Your task to perform on an android device: delete a single message in the gmail app Image 0: 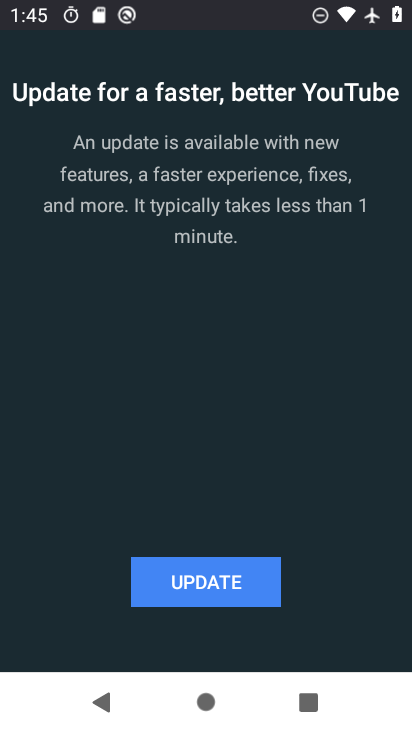
Step 0: press home button
Your task to perform on an android device: delete a single message in the gmail app Image 1: 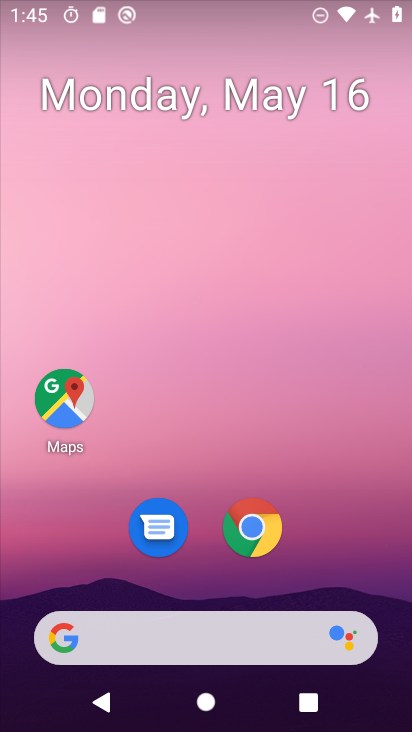
Step 1: drag from (214, 641) to (300, 225)
Your task to perform on an android device: delete a single message in the gmail app Image 2: 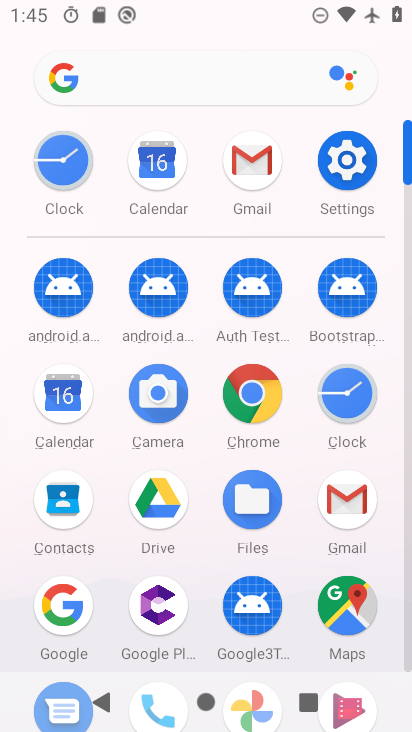
Step 2: click (259, 158)
Your task to perform on an android device: delete a single message in the gmail app Image 3: 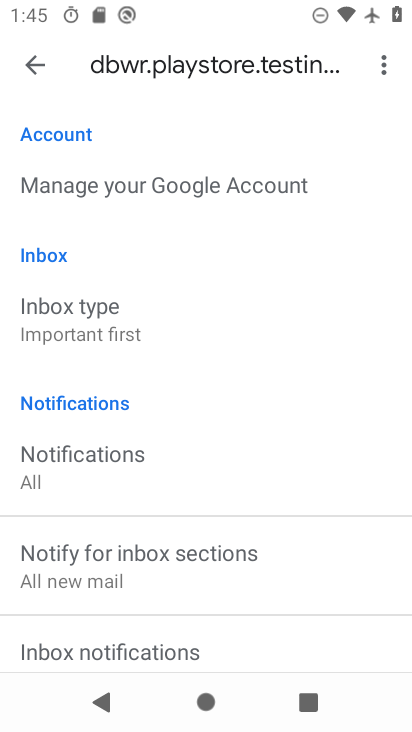
Step 3: click (43, 68)
Your task to perform on an android device: delete a single message in the gmail app Image 4: 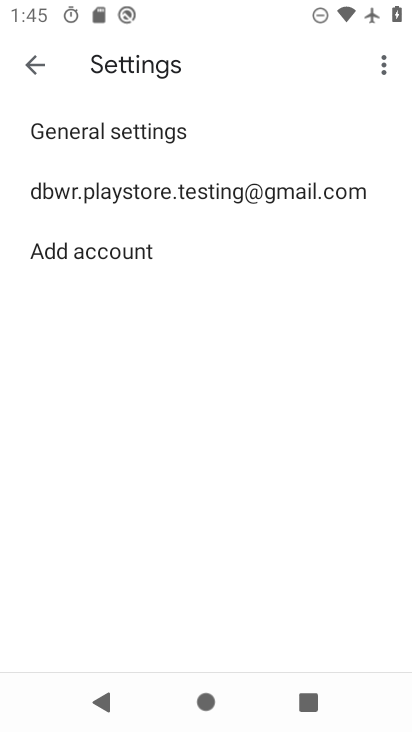
Step 4: click (32, 63)
Your task to perform on an android device: delete a single message in the gmail app Image 5: 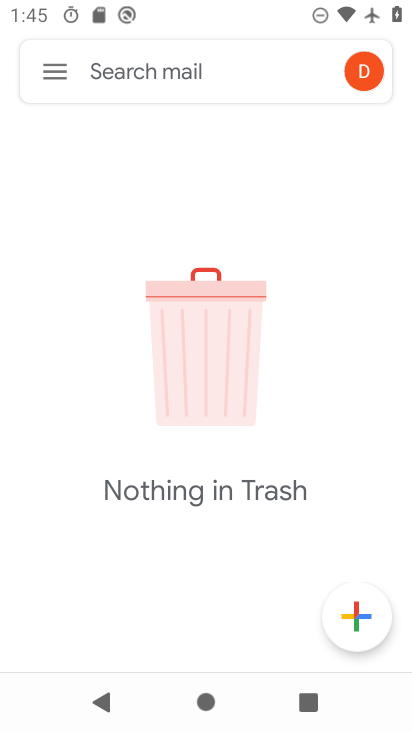
Step 5: task complete